Your task to perform on an android device: When is my next meeting? Image 0: 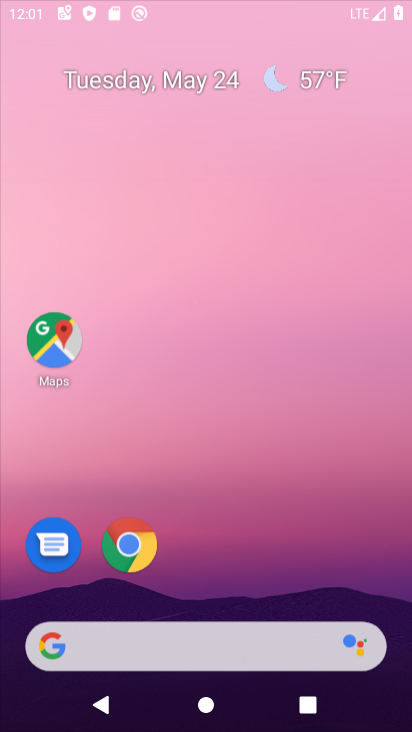
Step 0: click (410, 654)
Your task to perform on an android device: When is my next meeting? Image 1: 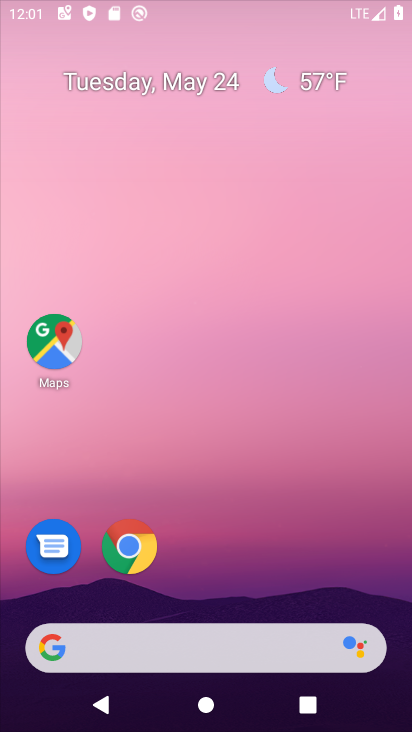
Step 1: drag from (215, 582) to (315, 0)
Your task to perform on an android device: When is my next meeting? Image 2: 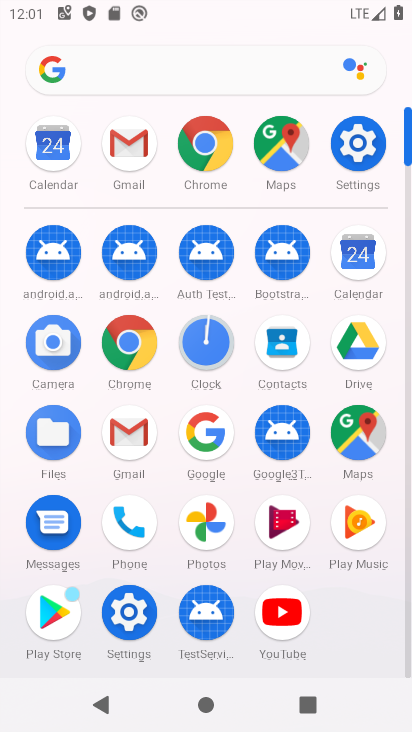
Step 2: click (362, 288)
Your task to perform on an android device: When is my next meeting? Image 3: 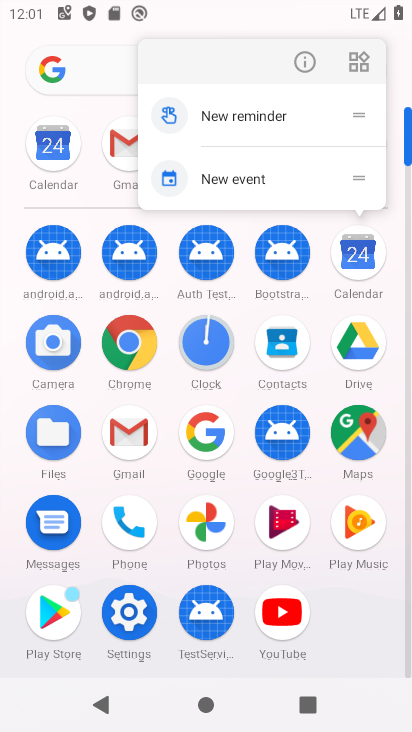
Step 3: click (306, 69)
Your task to perform on an android device: When is my next meeting? Image 4: 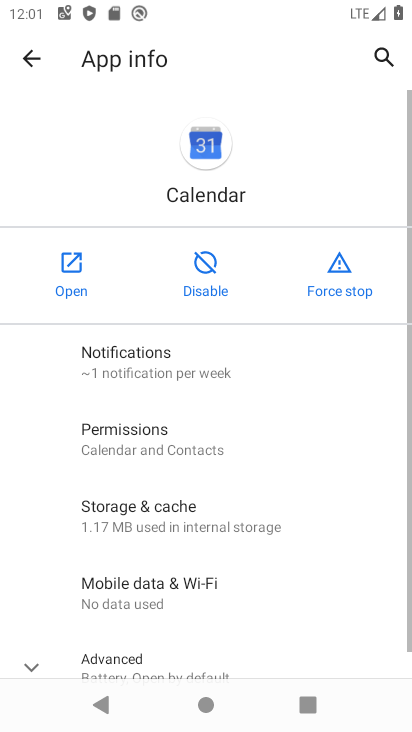
Step 4: click (88, 274)
Your task to perform on an android device: When is my next meeting? Image 5: 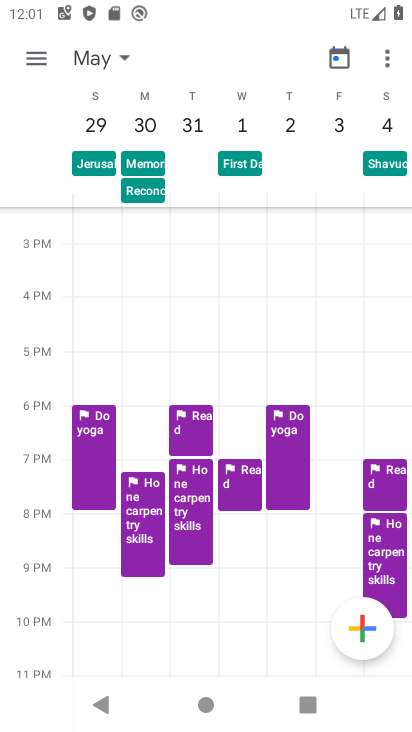
Step 5: click (109, 64)
Your task to perform on an android device: When is my next meeting? Image 6: 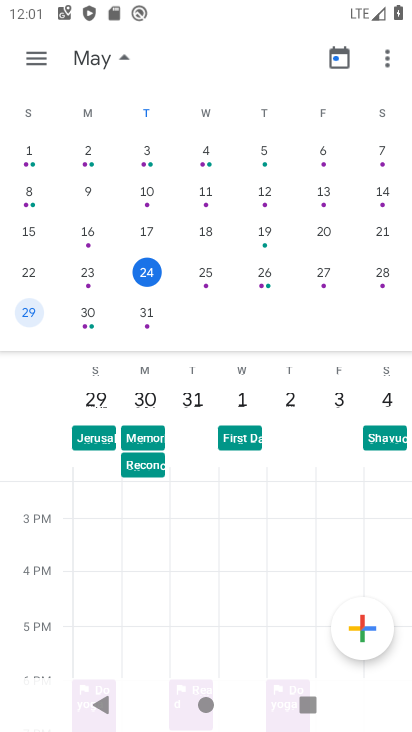
Step 6: click (108, 65)
Your task to perform on an android device: When is my next meeting? Image 7: 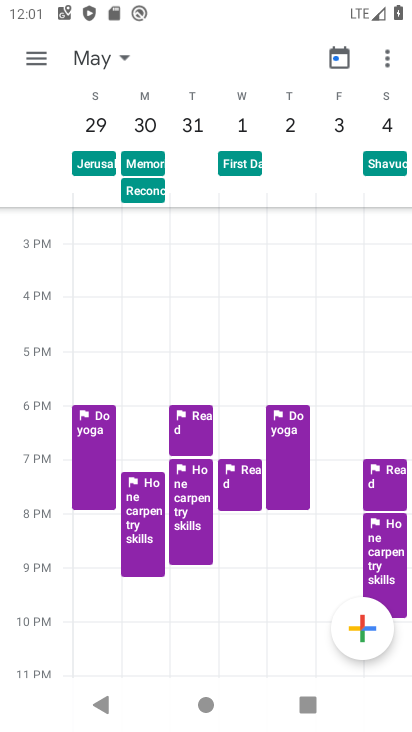
Step 7: click (107, 64)
Your task to perform on an android device: When is my next meeting? Image 8: 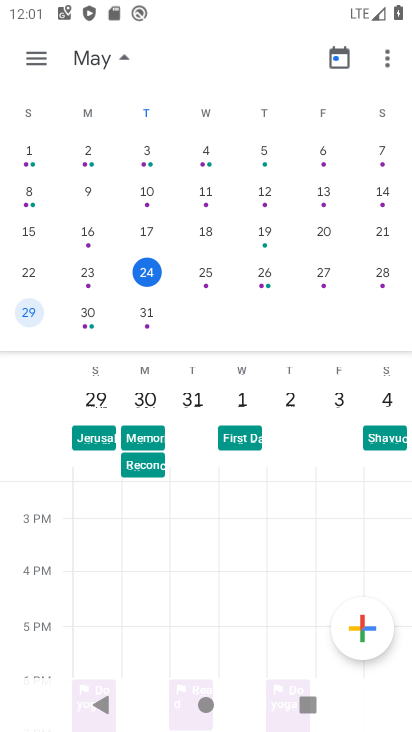
Step 8: click (159, 271)
Your task to perform on an android device: When is my next meeting? Image 9: 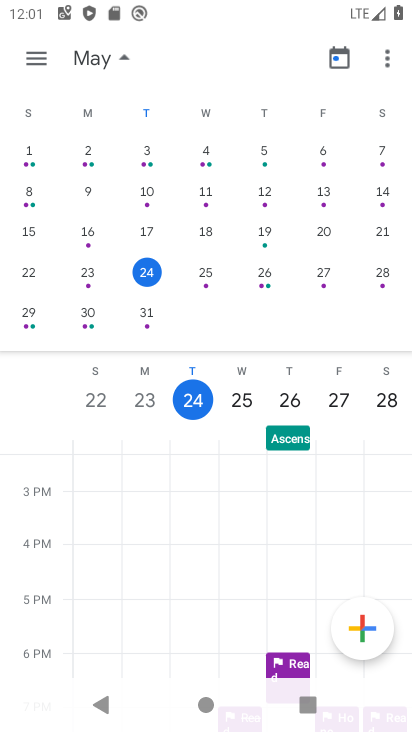
Step 9: task complete